Your task to perform on an android device: see creations saved in the google photos Image 0: 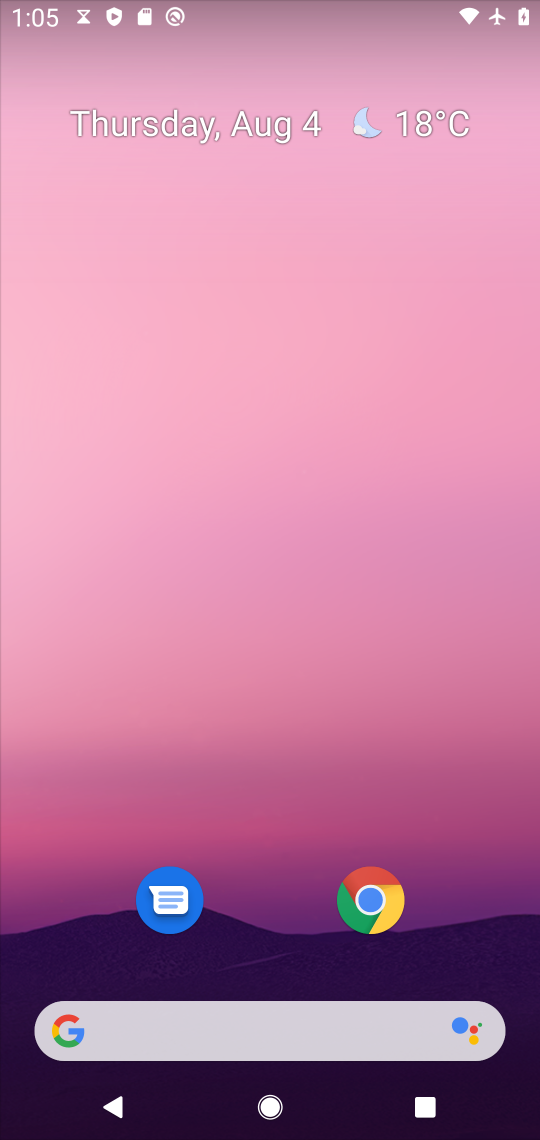
Step 0: press home button
Your task to perform on an android device: see creations saved in the google photos Image 1: 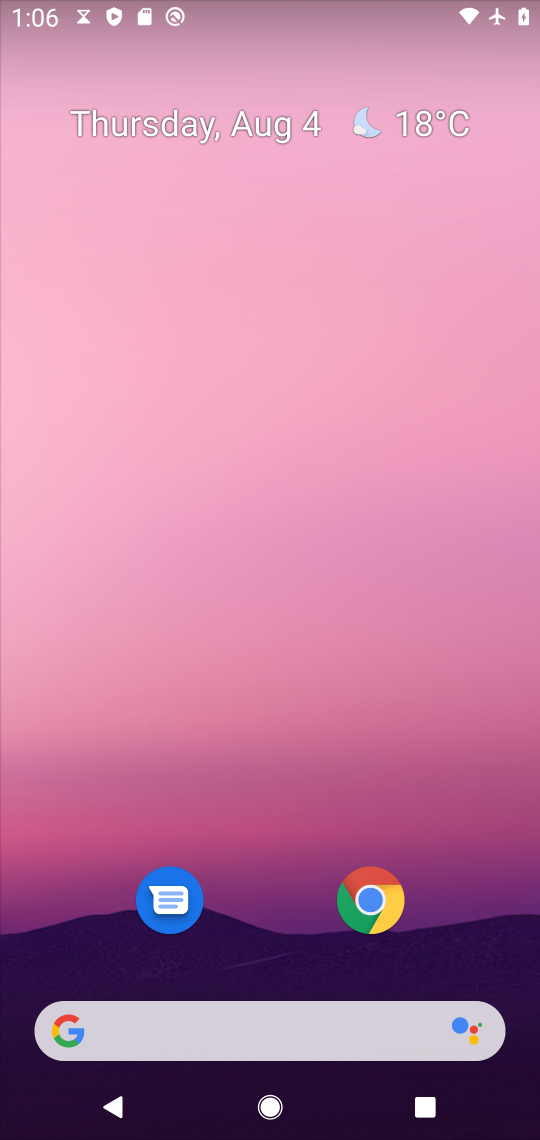
Step 1: drag from (289, 819) to (305, 154)
Your task to perform on an android device: see creations saved in the google photos Image 2: 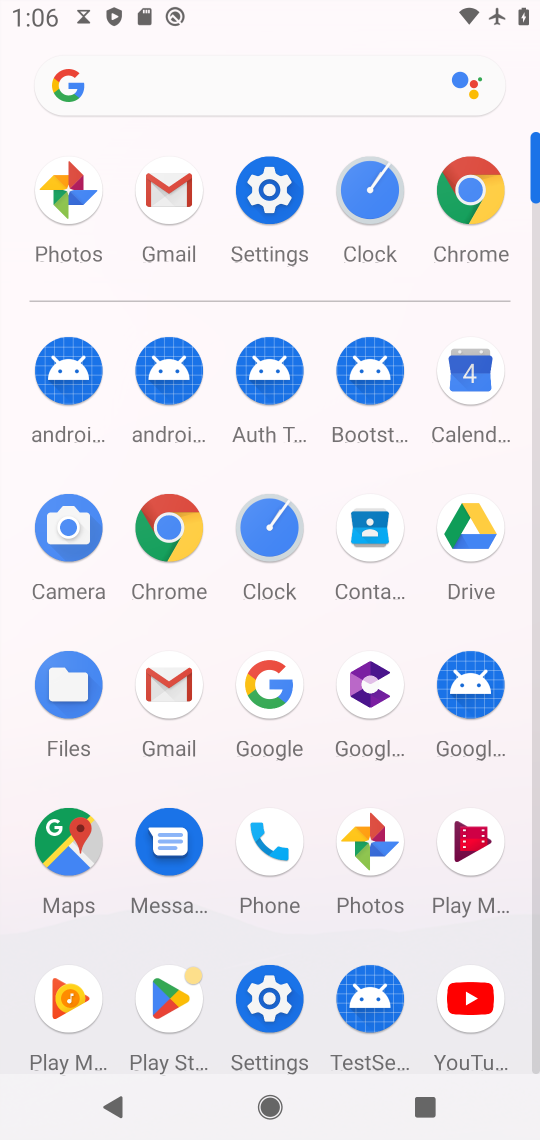
Step 2: press home button
Your task to perform on an android device: see creations saved in the google photos Image 3: 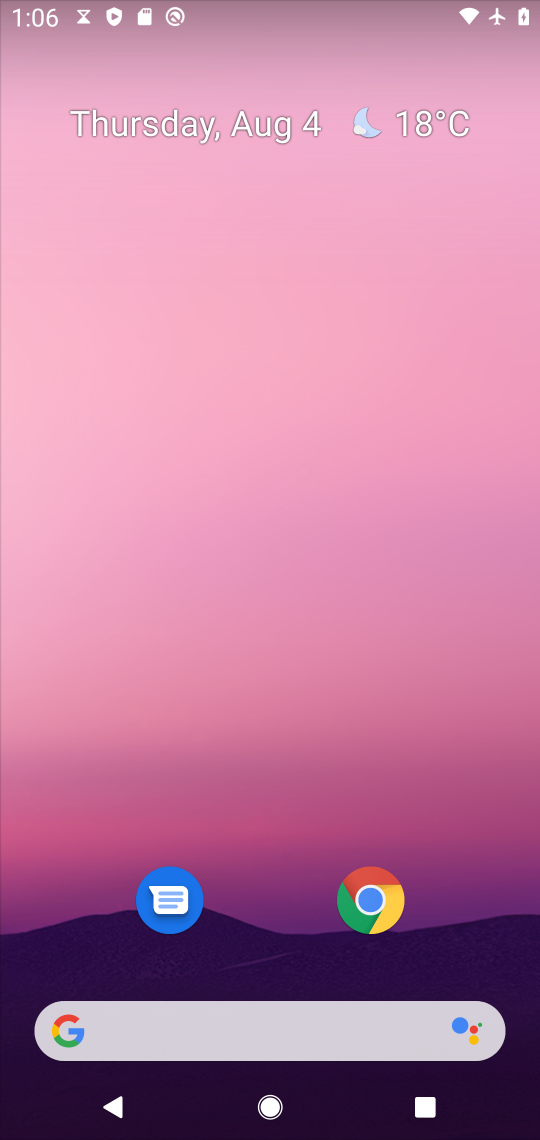
Step 3: drag from (234, 801) to (237, 233)
Your task to perform on an android device: see creations saved in the google photos Image 4: 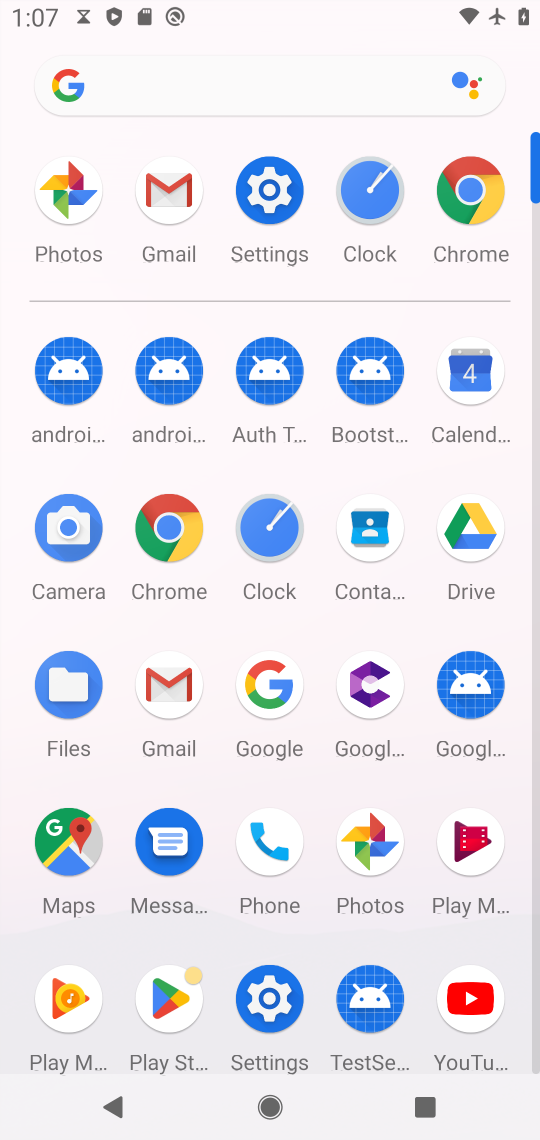
Step 4: click (75, 198)
Your task to perform on an android device: see creations saved in the google photos Image 5: 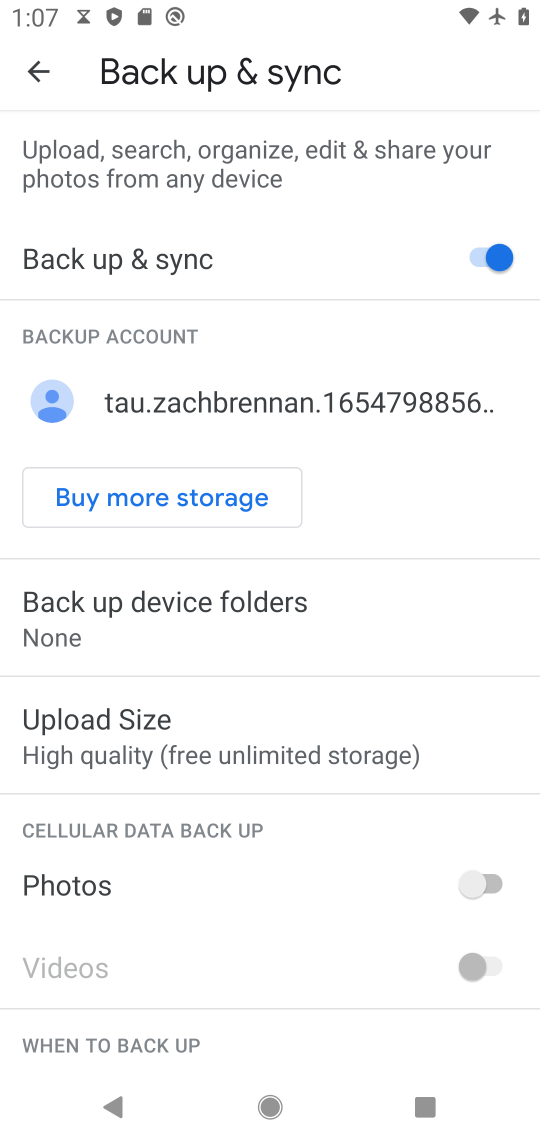
Step 5: click (38, 68)
Your task to perform on an android device: see creations saved in the google photos Image 6: 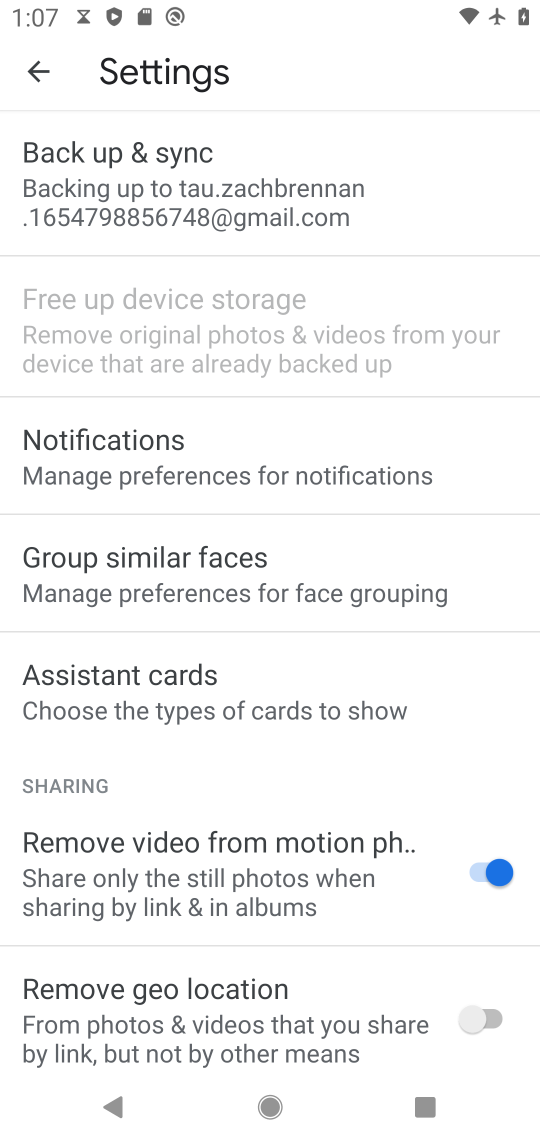
Step 6: click (38, 68)
Your task to perform on an android device: see creations saved in the google photos Image 7: 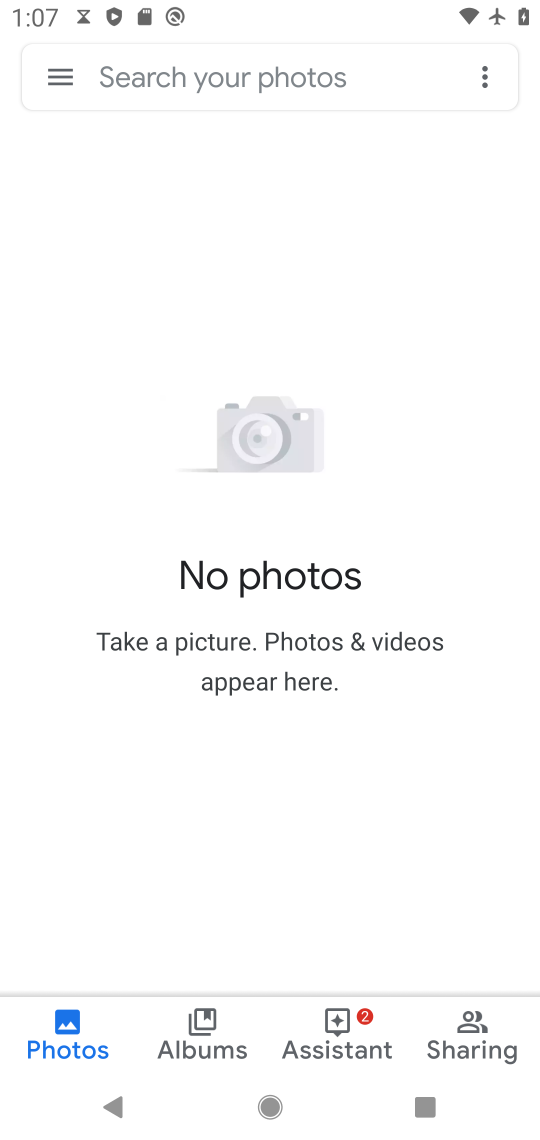
Step 7: click (259, 72)
Your task to perform on an android device: see creations saved in the google photos Image 8: 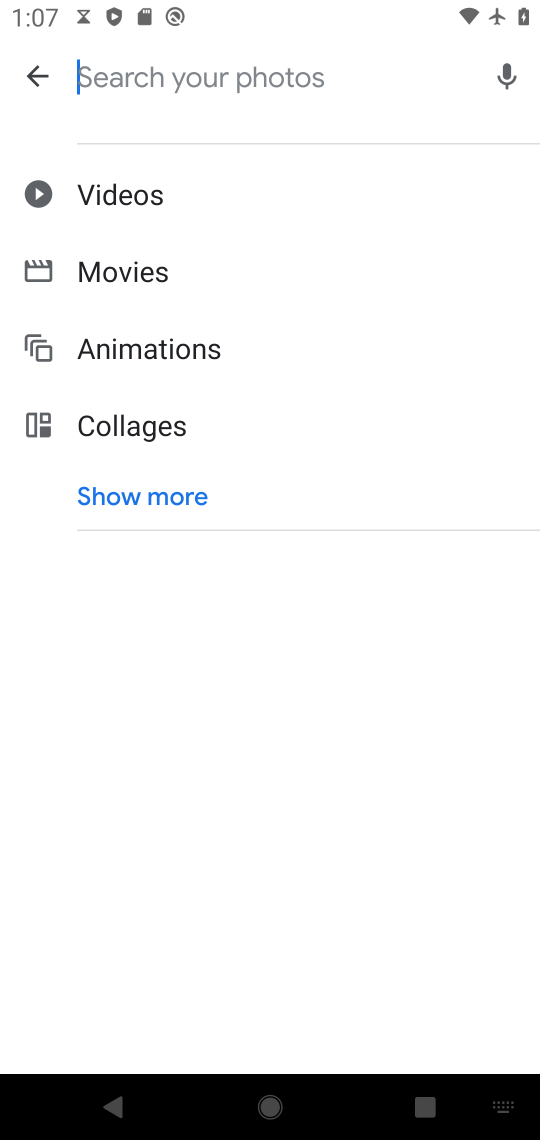
Step 8: click (133, 499)
Your task to perform on an android device: see creations saved in the google photos Image 9: 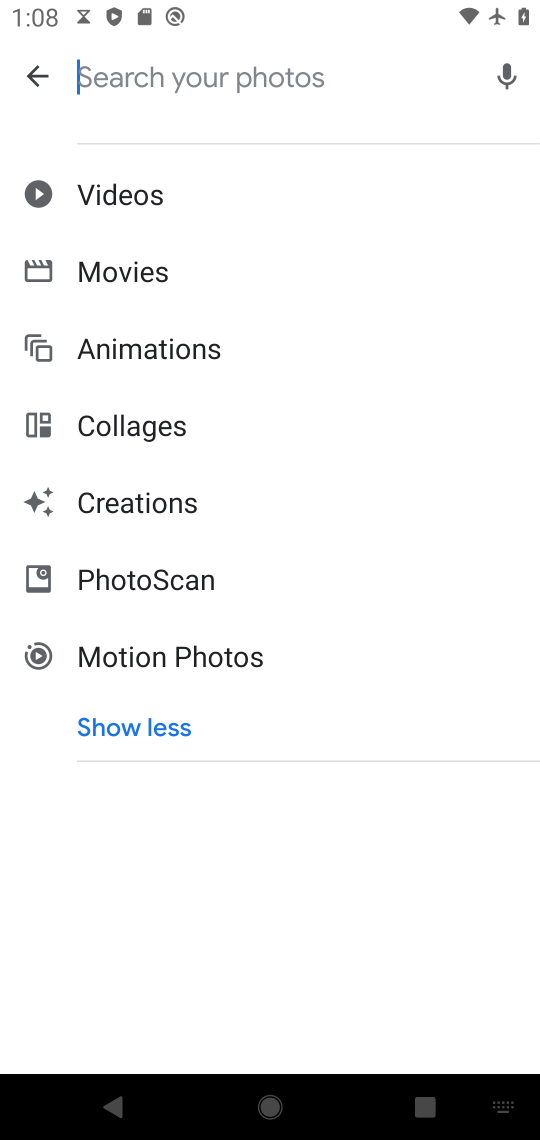
Step 9: click (130, 510)
Your task to perform on an android device: see creations saved in the google photos Image 10: 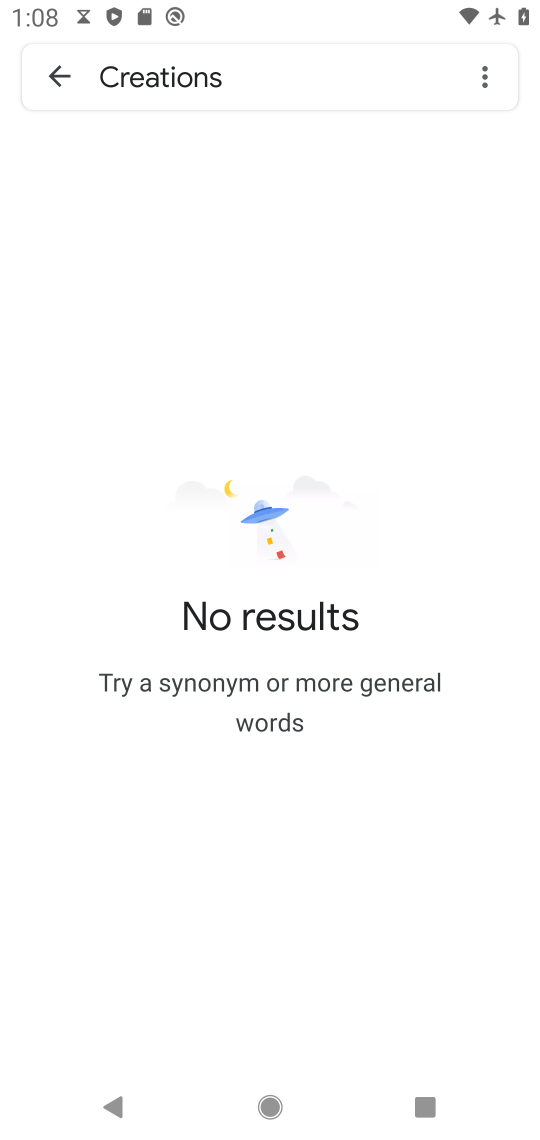
Step 10: task complete